Your task to perform on an android device: Go to display settings Image 0: 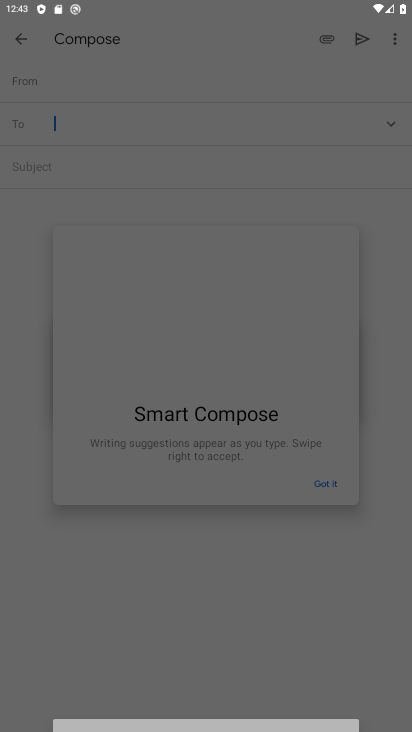
Step 0: click (317, 397)
Your task to perform on an android device: Go to display settings Image 1: 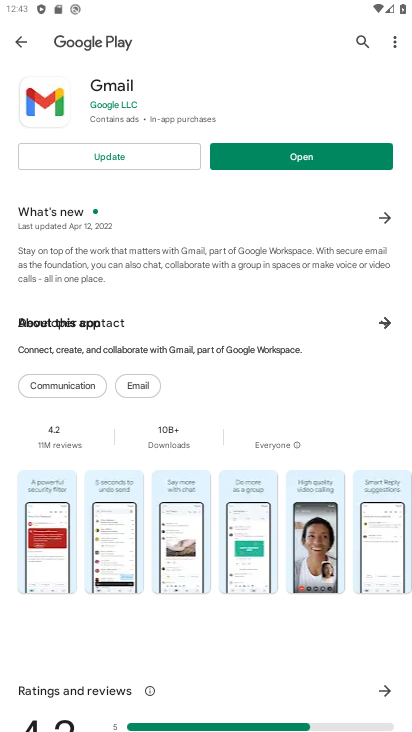
Step 1: press home button
Your task to perform on an android device: Go to display settings Image 2: 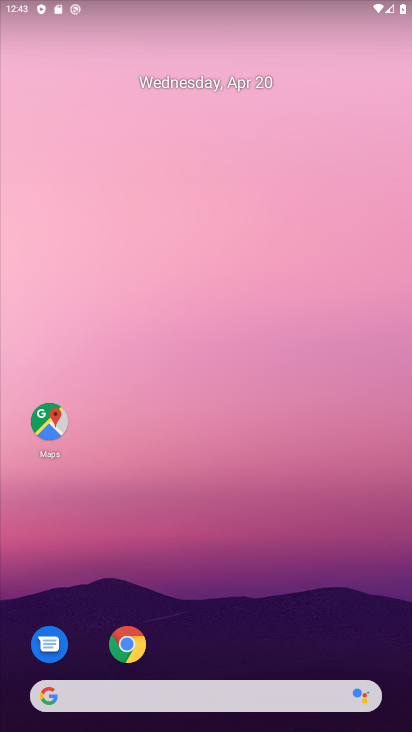
Step 2: drag from (188, 611) to (248, 41)
Your task to perform on an android device: Go to display settings Image 3: 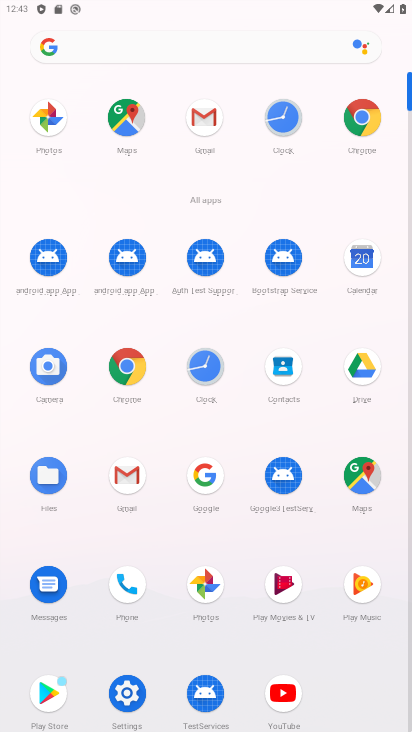
Step 3: click (127, 691)
Your task to perform on an android device: Go to display settings Image 4: 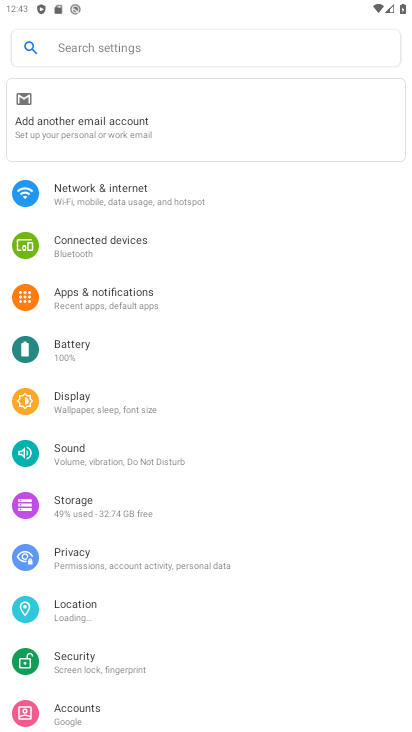
Step 4: click (111, 400)
Your task to perform on an android device: Go to display settings Image 5: 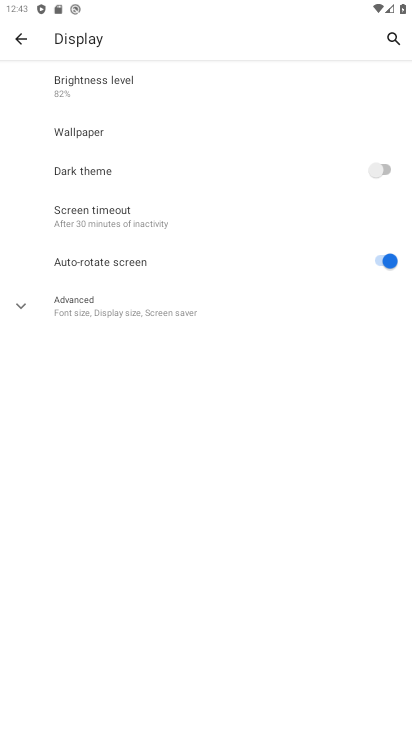
Step 5: task complete